Your task to perform on an android device: add a label to a message in the gmail app Image 0: 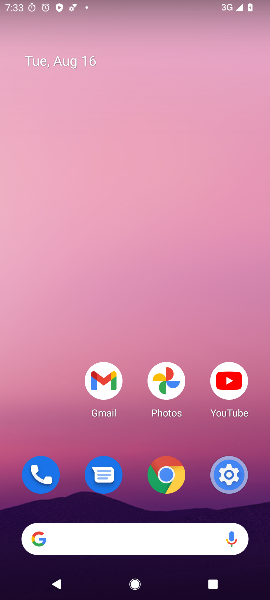
Step 0: drag from (212, 498) to (84, 70)
Your task to perform on an android device: add a label to a message in the gmail app Image 1: 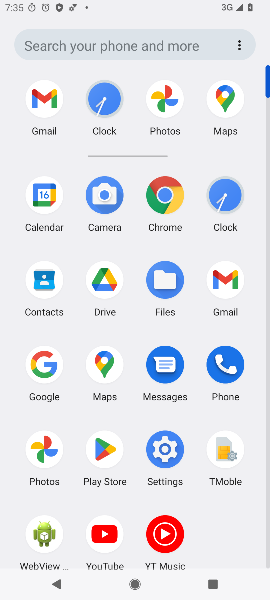
Step 1: click (221, 301)
Your task to perform on an android device: add a label to a message in the gmail app Image 2: 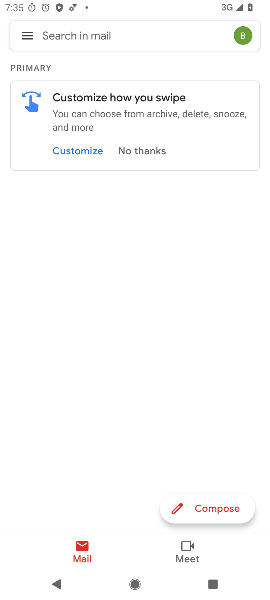
Step 2: task complete